Your task to perform on an android device: Do I have any events this weekend? Image 0: 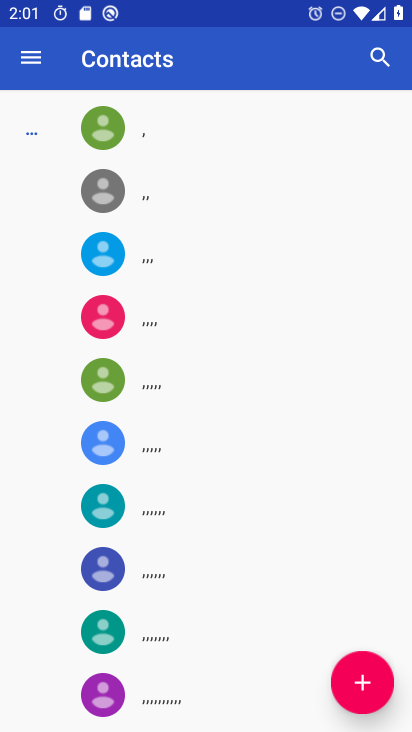
Step 0: press home button
Your task to perform on an android device: Do I have any events this weekend? Image 1: 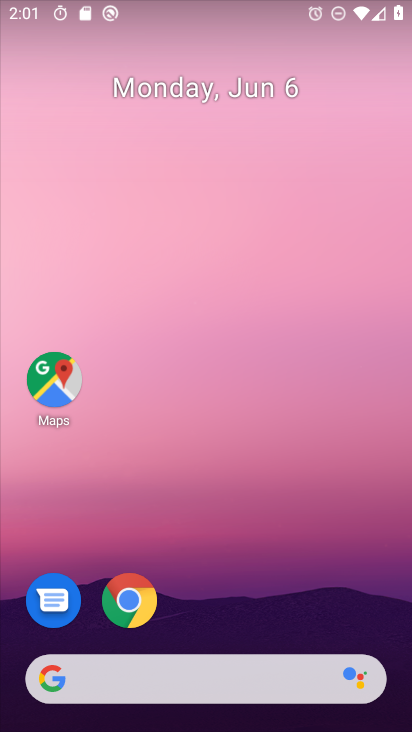
Step 1: click (224, 249)
Your task to perform on an android device: Do I have any events this weekend? Image 2: 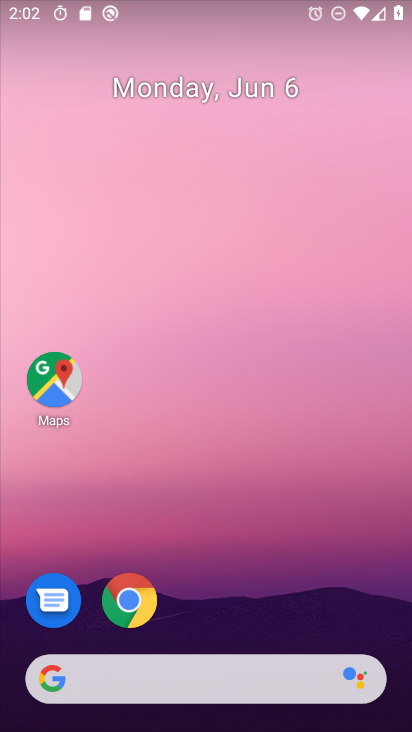
Step 2: drag from (222, 630) to (225, 154)
Your task to perform on an android device: Do I have any events this weekend? Image 3: 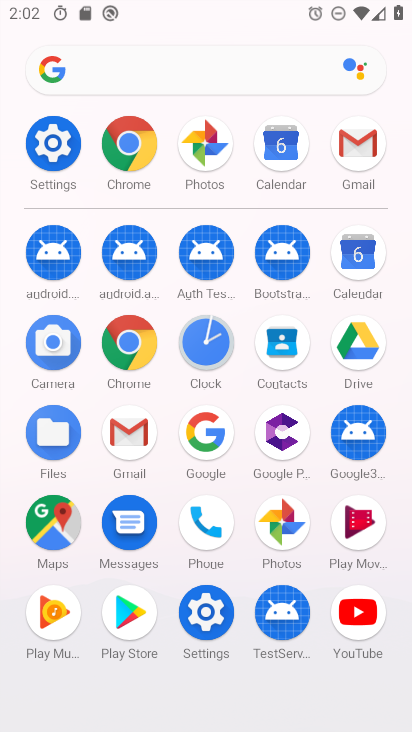
Step 3: click (353, 277)
Your task to perform on an android device: Do I have any events this weekend? Image 4: 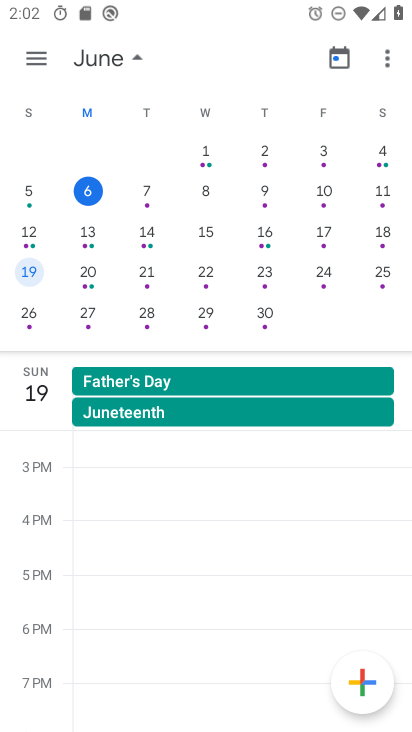
Step 4: click (369, 193)
Your task to perform on an android device: Do I have any events this weekend? Image 5: 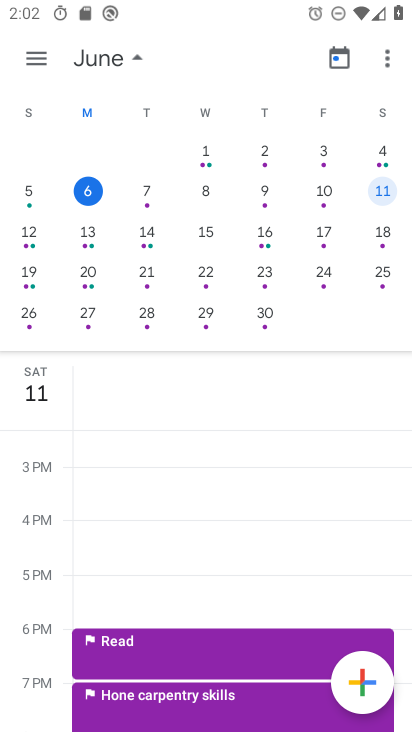
Step 5: task complete